Your task to perform on an android device: turn off sleep mode Image 0: 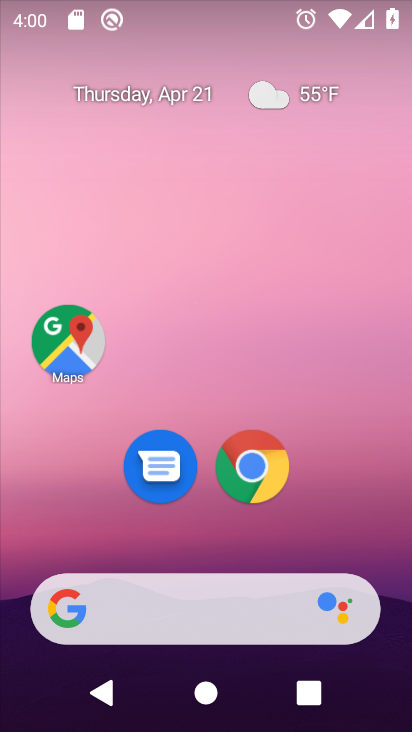
Step 0: drag from (197, 458) to (269, 112)
Your task to perform on an android device: turn off sleep mode Image 1: 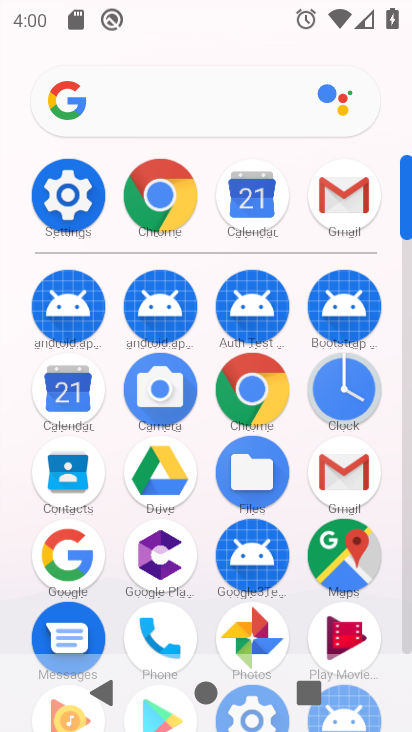
Step 1: click (79, 185)
Your task to perform on an android device: turn off sleep mode Image 2: 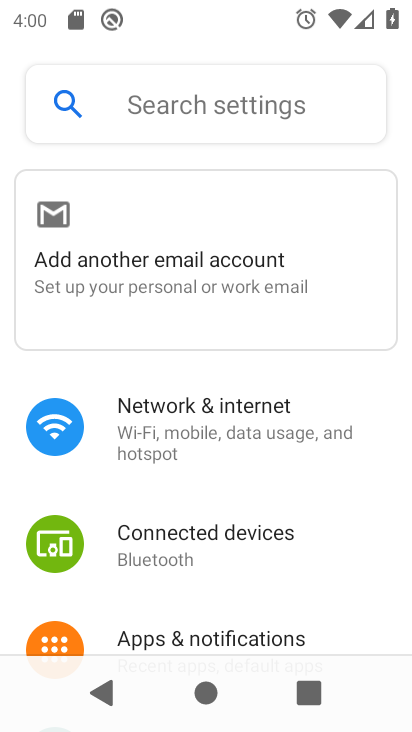
Step 2: drag from (232, 507) to (212, 96)
Your task to perform on an android device: turn off sleep mode Image 3: 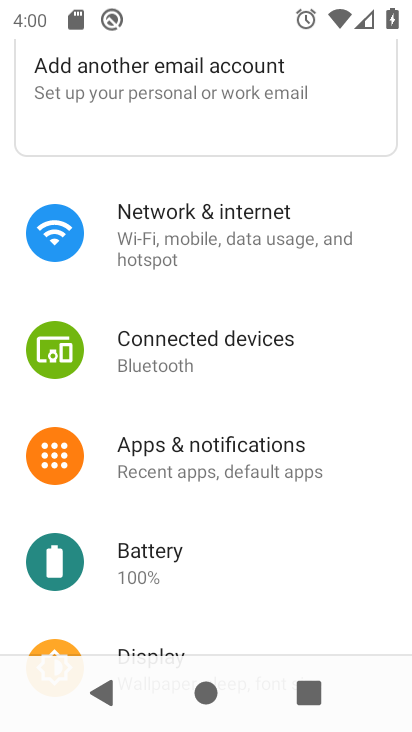
Step 3: drag from (281, 535) to (275, 28)
Your task to perform on an android device: turn off sleep mode Image 4: 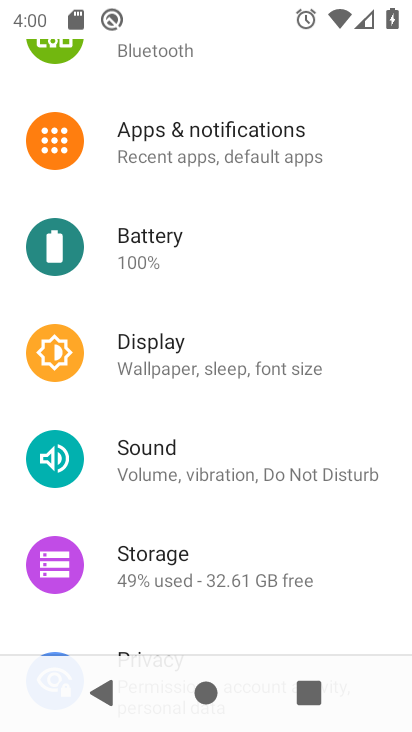
Step 4: click (277, 365)
Your task to perform on an android device: turn off sleep mode Image 5: 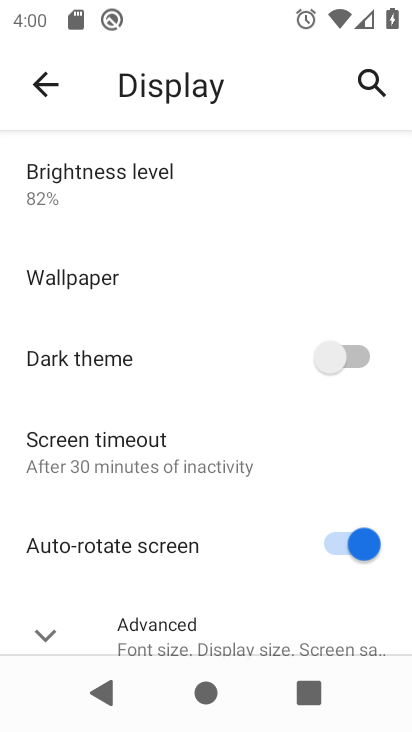
Step 5: click (214, 452)
Your task to perform on an android device: turn off sleep mode Image 6: 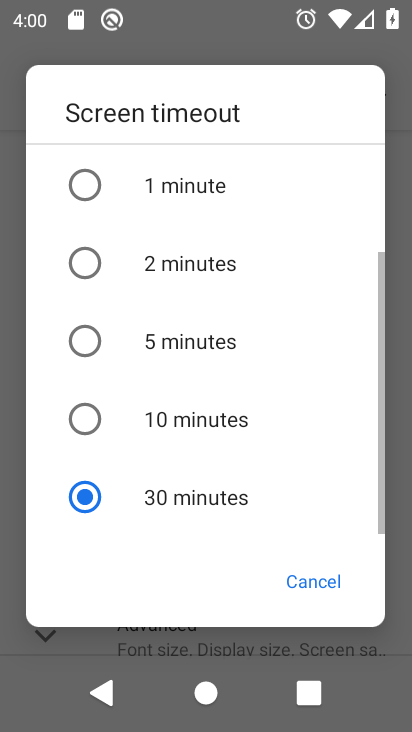
Step 6: task complete